Your task to perform on an android device: Go to Maps Image 0: 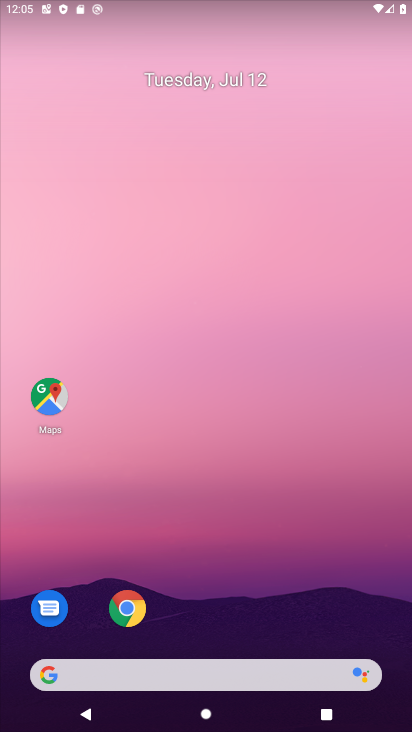
Step 0: click (50, 402)
Your task to perform on an android device: Go to Maps Image 1: 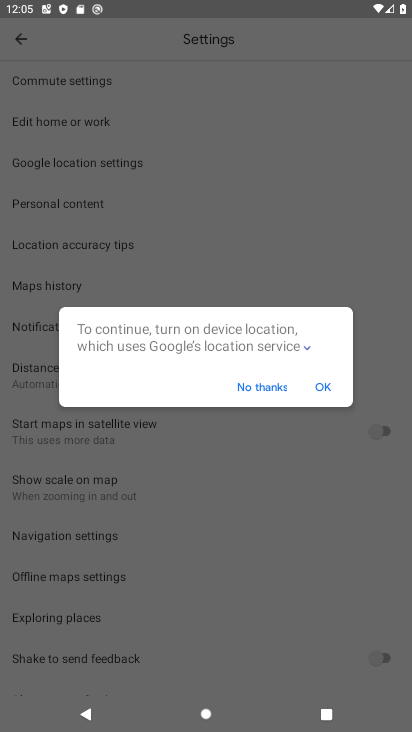
Step 1: click (332, 394)
Your task to perform on an android device: Go to Maps Image 2: 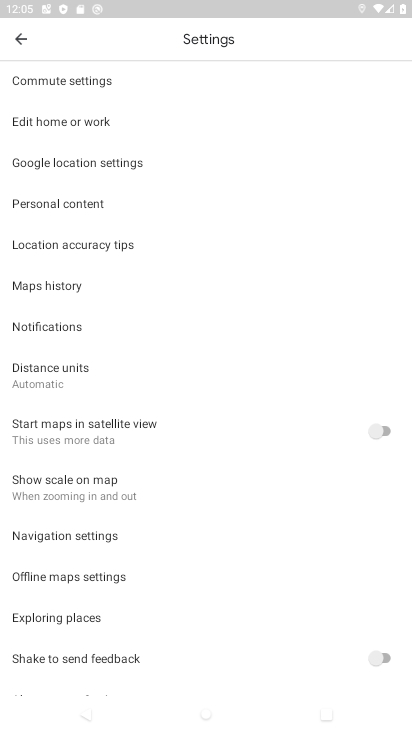
Step 2: click (26, 39)
Your task to perform on an android device: Go to Maps Image 3: 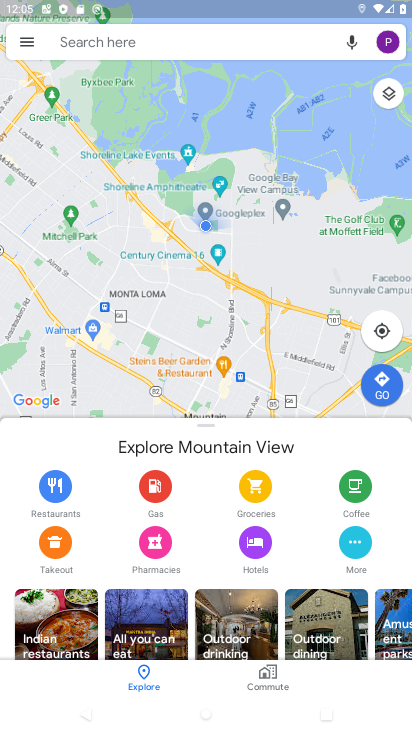
Step 3: task complete